Your task to perform on an android device: set the timer Image 0: 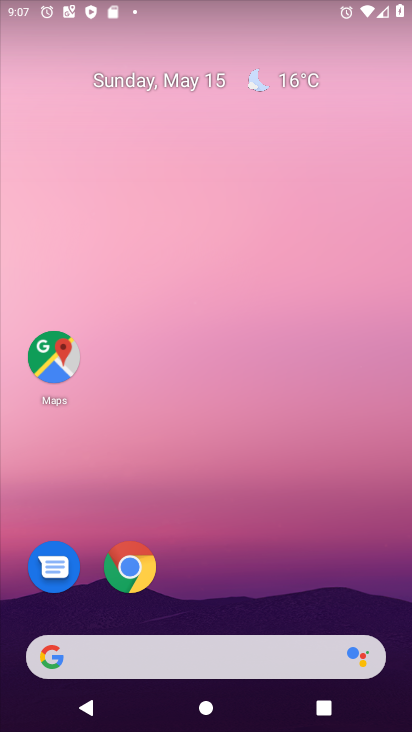
Step 0: drag from (178, 660) to (268, 134)
Your task to perform on an android device: set the timer Image 1: 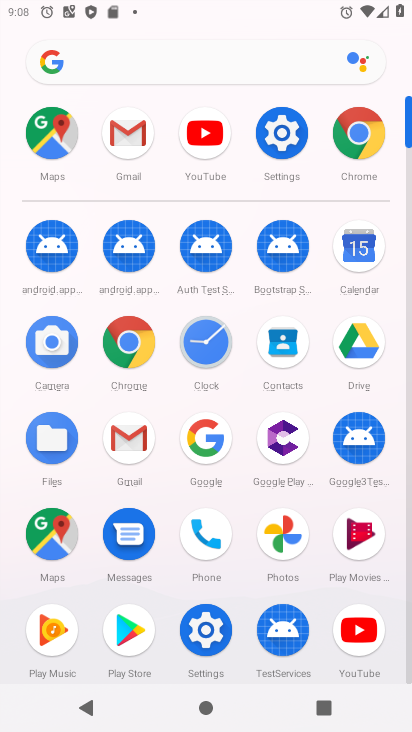
Step 1: click (203, 357)
Your task to perform on an android device: set the timer Image 2: 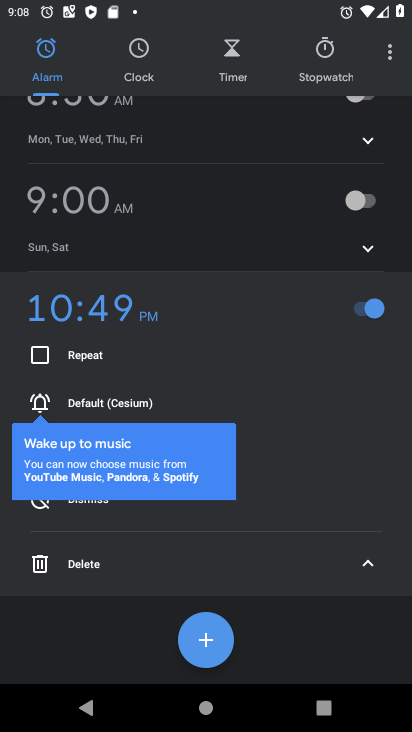
Step 2: click (222, 66)
Your task to perform on an android device: set the timer Image 3: 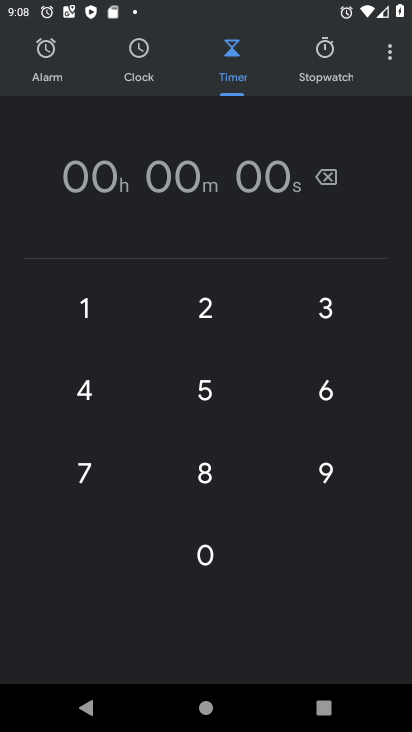
Step 3: click (95, 391)
Your task to perform on an android device: set the timer Image 4: 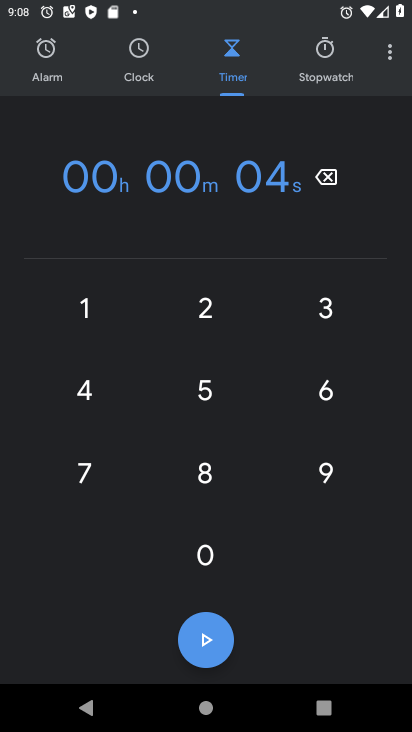
Step 4: click (209, 393)
Your task to perform on an android device: set the timer Image 5: 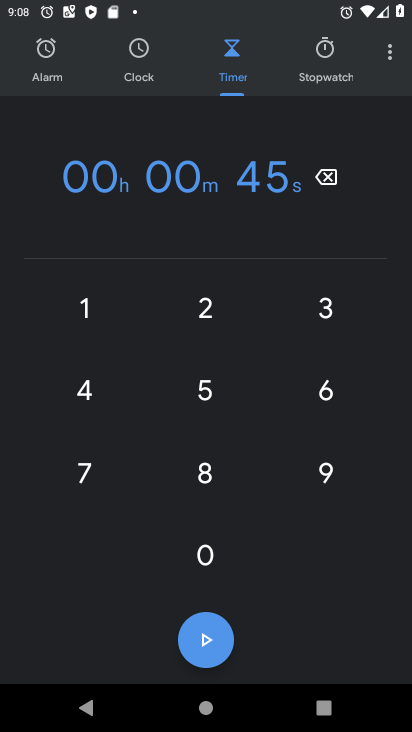
Step 5: click (293, 396)
Your task to perform on an android device: set the timer Image 6: 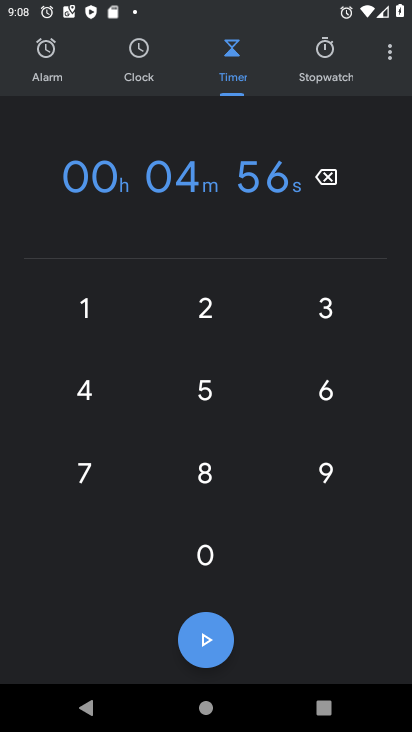
Step 6: click (318, 488)
Your task to perform on an android device: set the timer Image 7: 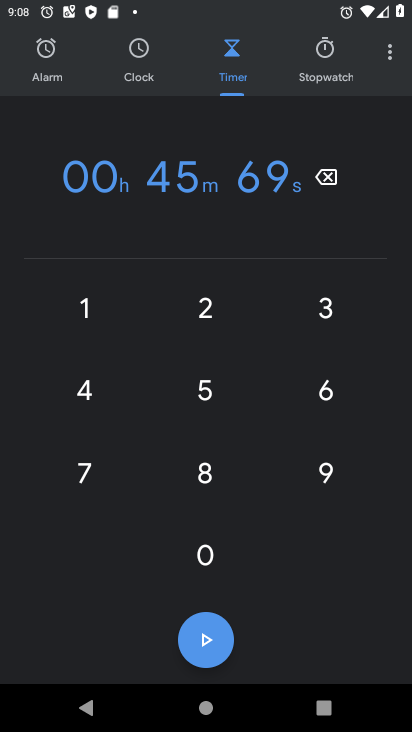
Step 7: task complete